Your task to perform on an android device: Open network settings Image 0: 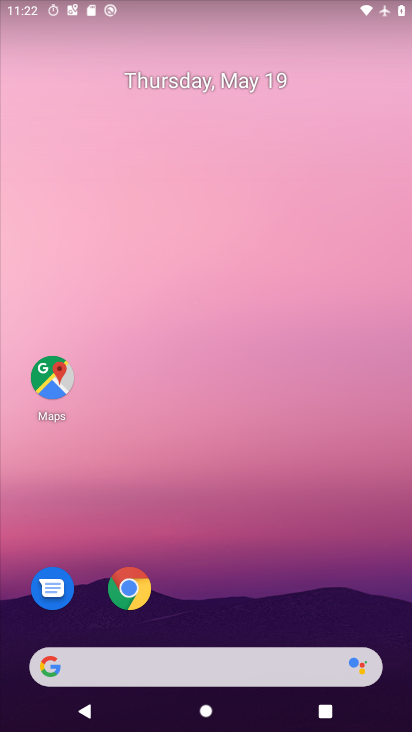
Step 0: press home button
Your task to perform on an android device: Open network settings Image 1: 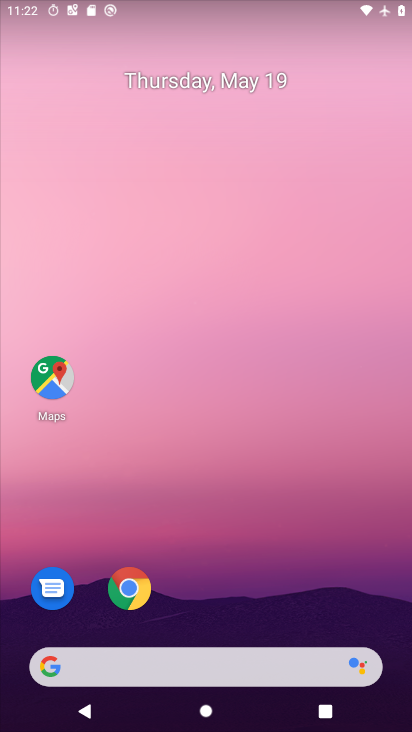
Step 1: drag from (166, 664) to (292, 182)
Your task to perform on an android device: Open network settings Image 2: 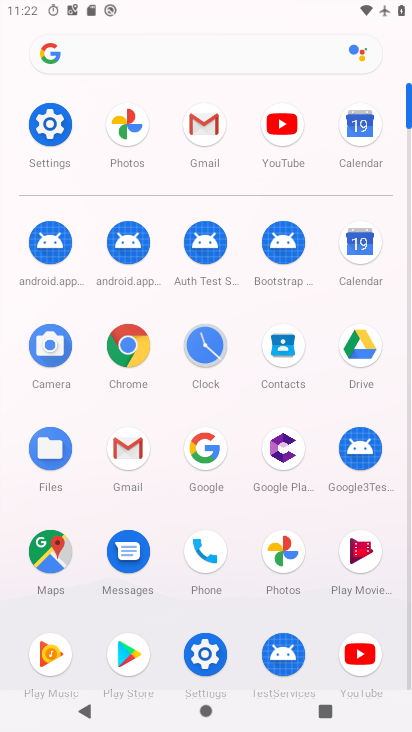
Step 2: click (59, 130)
Your task to perform on an android device: Open network settings Image 3: 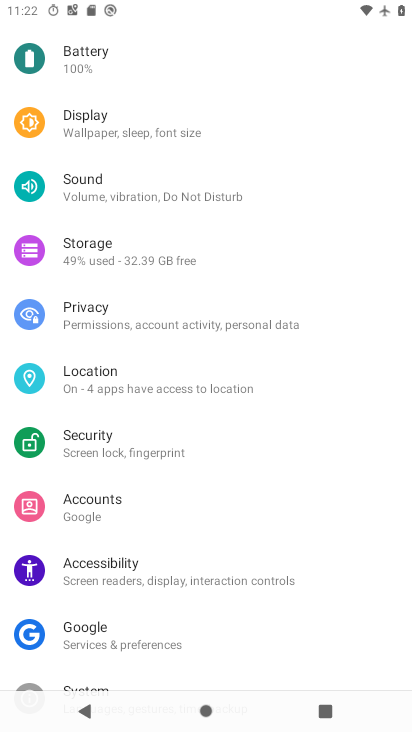
Step 3: drag from (307, 94) to (287, 598)
Your task to perform on an android device: Open network settings Image 4: 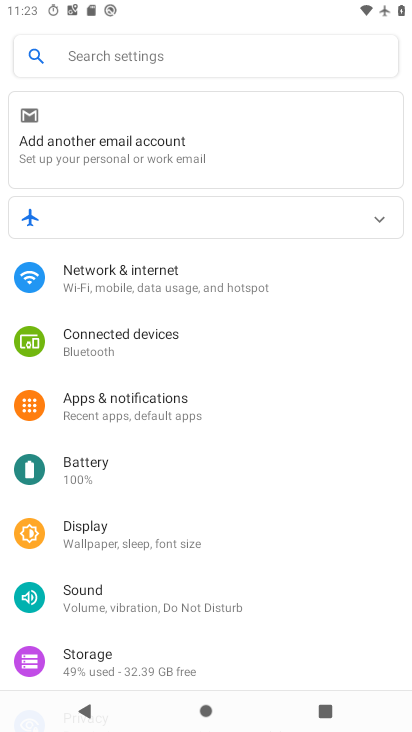
Step 4: click (151, 281)
Your task to perform on an android device: Open network settings Image 5: 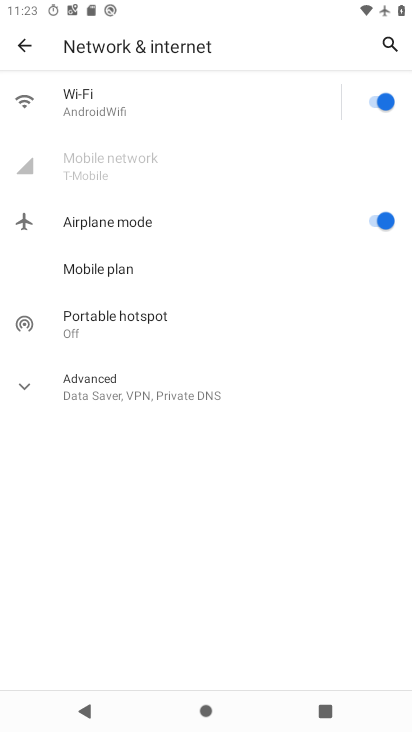
Step 5: task complete